Your task to perform on an android device: Go to settings Image 0: 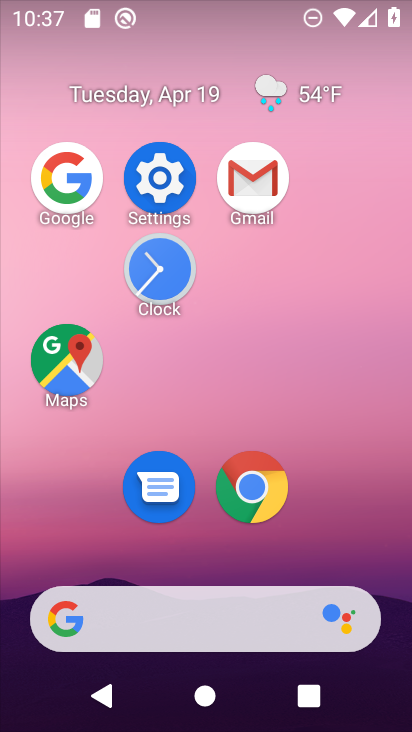
Step 0: click (171, 182)
Your task to perform on an android device: Go to settings Image 1: 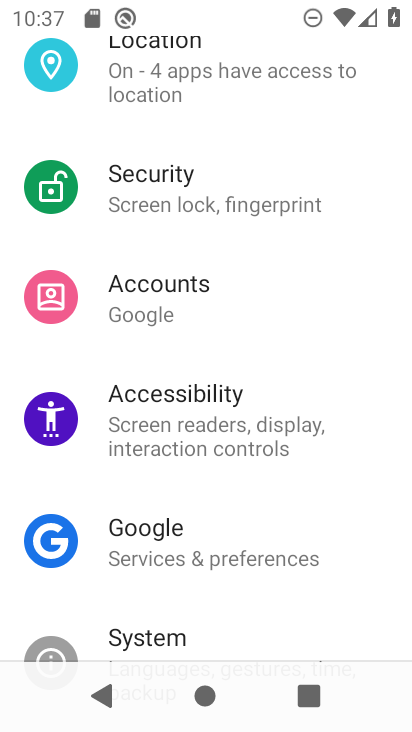
Step 1: task complete